Your task to perform on an android device: Open sound settings Image 0: 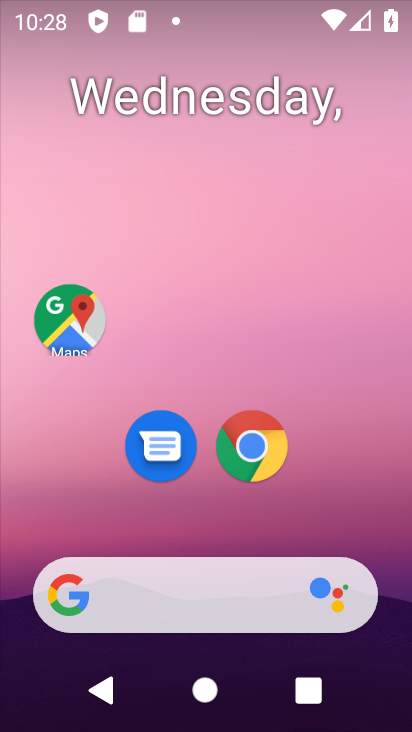
Step 0: drag from (74, 563) to (202, 155)
Your task to perform on an android device: Open sound settings Image 1: 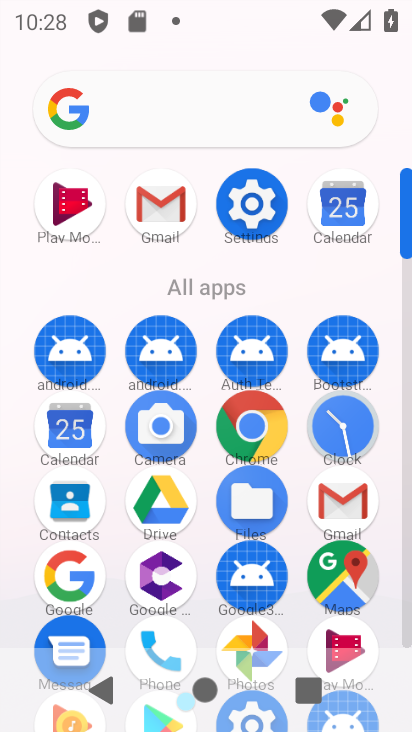
Step 1: drag from (200, 650) to (276, 411)
Your task to perform on an android device: Open sound settings Image 2: 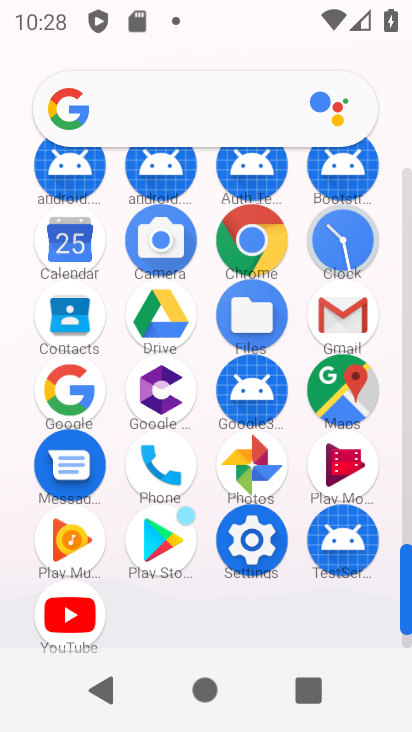
Step 2: click (255, 542)
Your task to perform on an android device: Open sound settings Image 3: 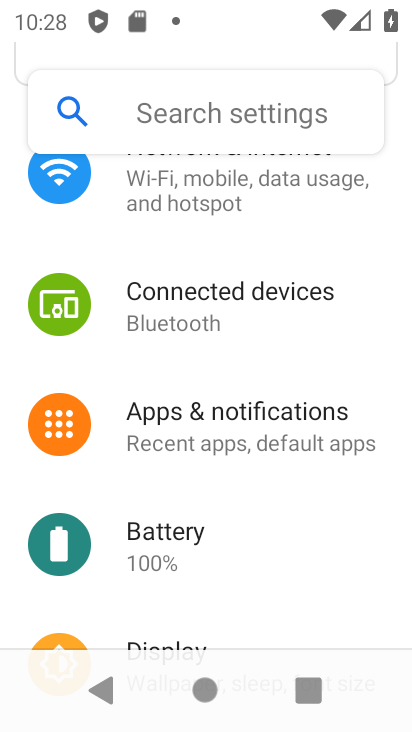
Step 3: drag from (141, 566) to (270, 230)
Your task to perform on an android device: Open sound settings Image 4: 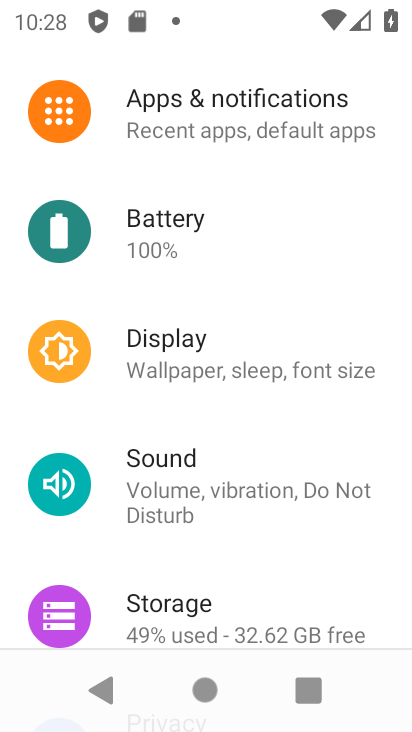
Step 4: click (180, 476)
Your task to perform on an android device: Open sound settings Image 5: 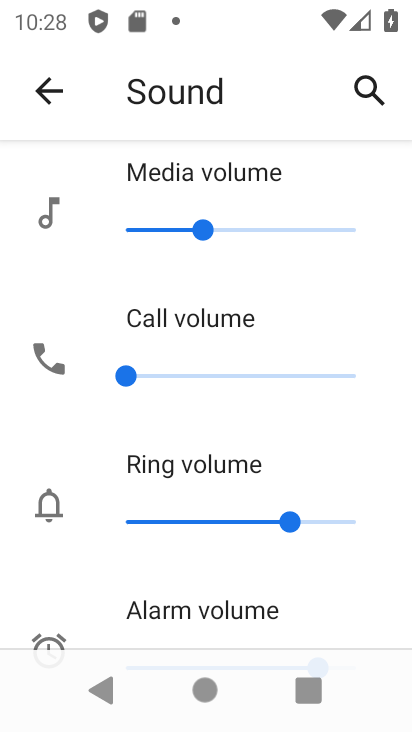
Step 5: task complete